Your task to perform on an android device: toggle translation in the chrome app Image 0: 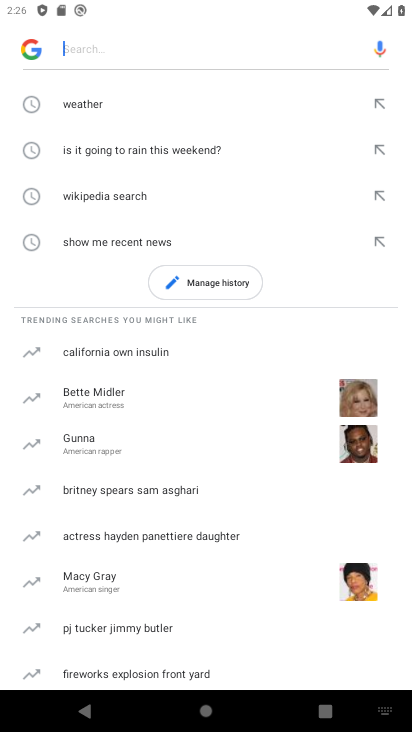
Step 0: press back button
Your task to perform on an android device: toggle translation in the chrome app Image 1: 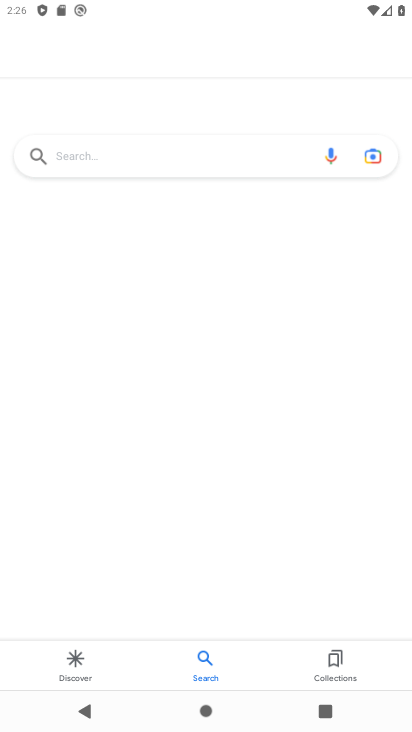
Step 1: press back button
Your task to perform on an android device: toggle translation in the chrome app Image 2: 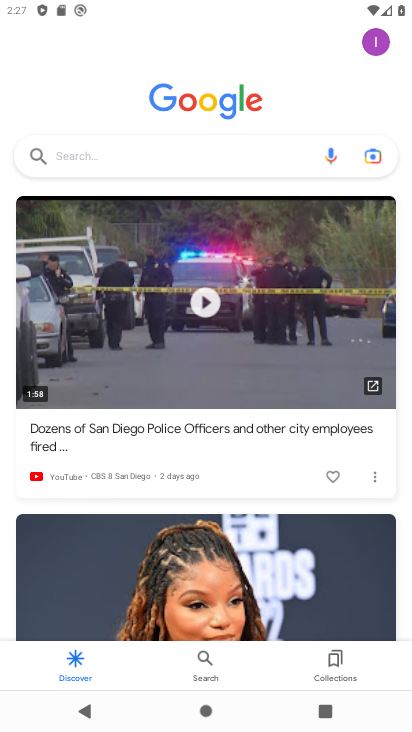
Step 2: press back button
Your task to perform on an android device: toggle translation in the chrome app Image 3: 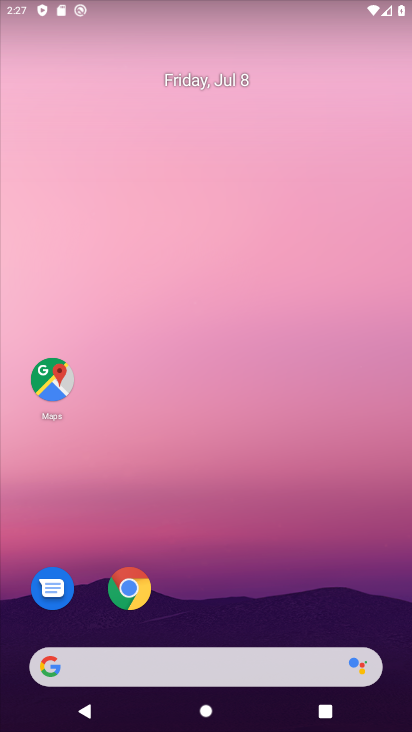
Step 3: click (133, 578)
Your task to perform on an android device: toggle translation in the chrome app Image 4: 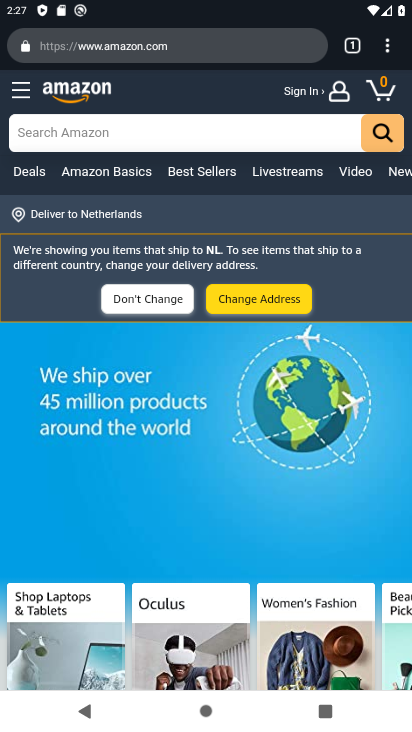
Step 4: click (386, 46)
Your task to perform on an android device: toggle translation in the chrome app Image 5: 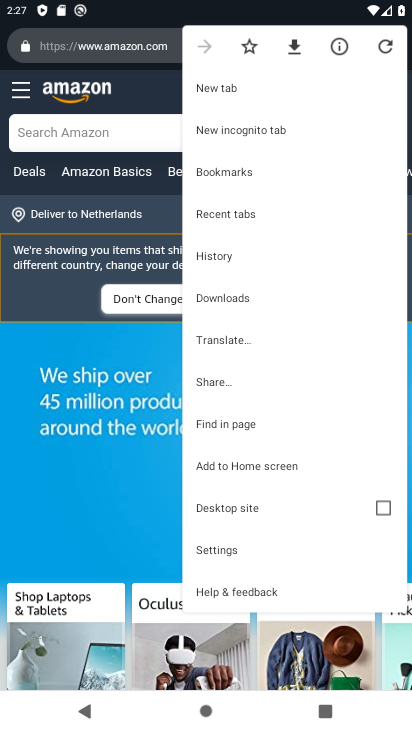
Step 5: click (221, 544)
Your task to perform on an android device: toggle translation in the chrome app Image 6: 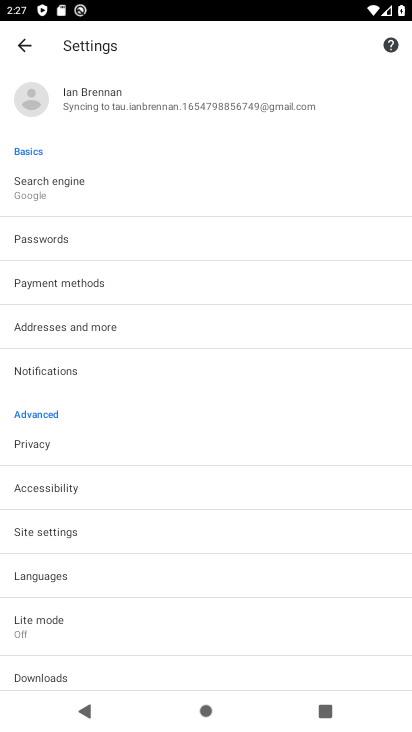
Step 6: click (63, 572)
Your task to perform on an android device: toggle translation in the chrome app Image 7: 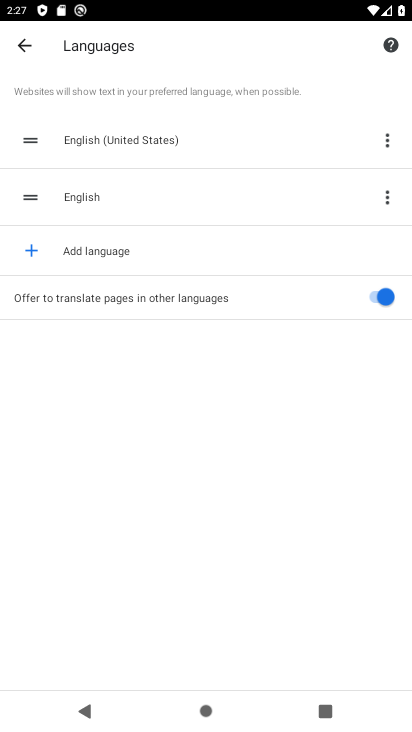
Step 7: click (378, 294)
Your task to perform on an android device: toggle translation in the chrome app Image 8: 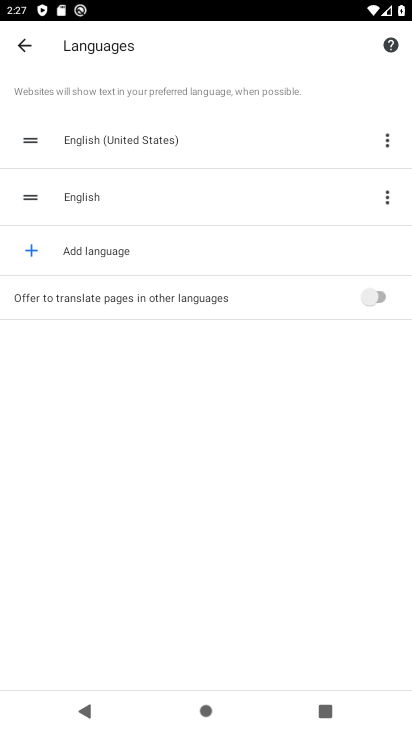
Step 8: task complete